Your task to perform on an android device: turn off smart reply in the gmail app Image 0: 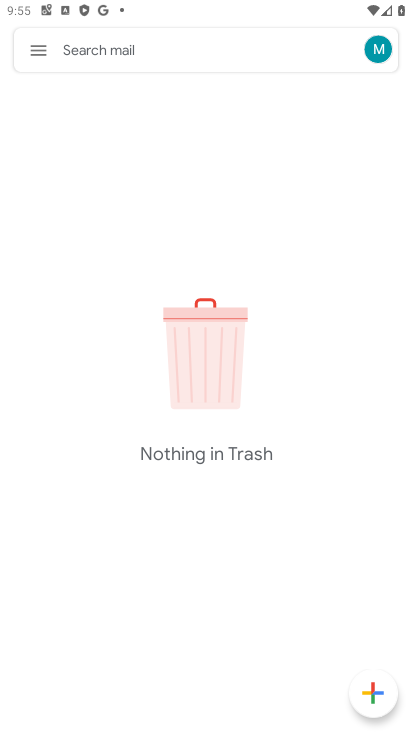
Step 0: press home button
Your task to perform on an android device: turn off smart reply in the gmail app Image 1: 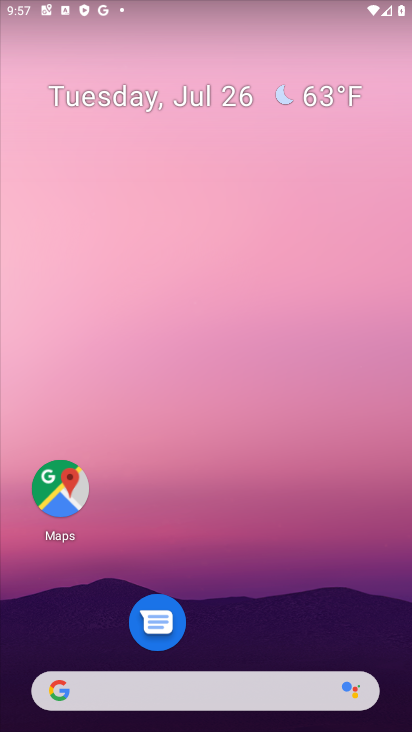
Step 1: drag from (254, 594) to (190, 4)
Your task to perform on an android device: turn off smart reply in the gmail app Image 2: 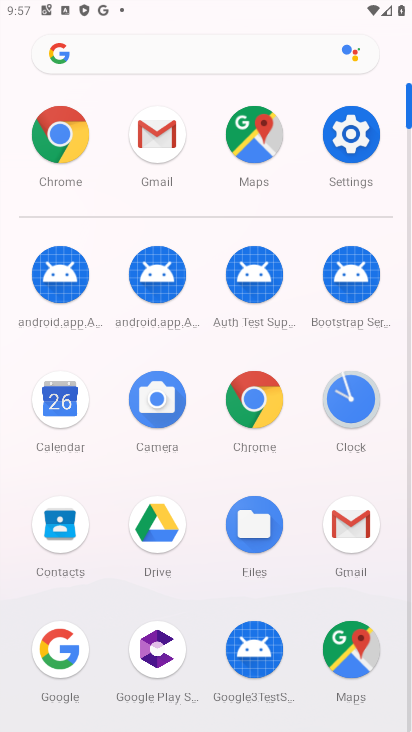
Step 2: click (163, 133)
Your task to perform on an android device: turn off smart reply in the gmail app Image 3: 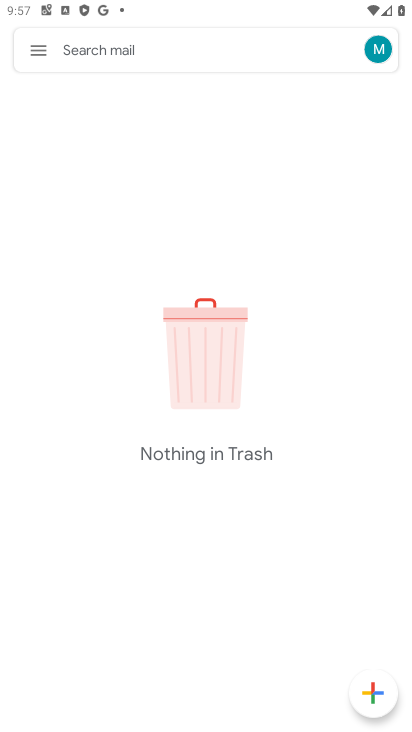
Step 3: click (46, 53)
Your task to perform on an android device: turn off smart reply in the gmail app Image 4: 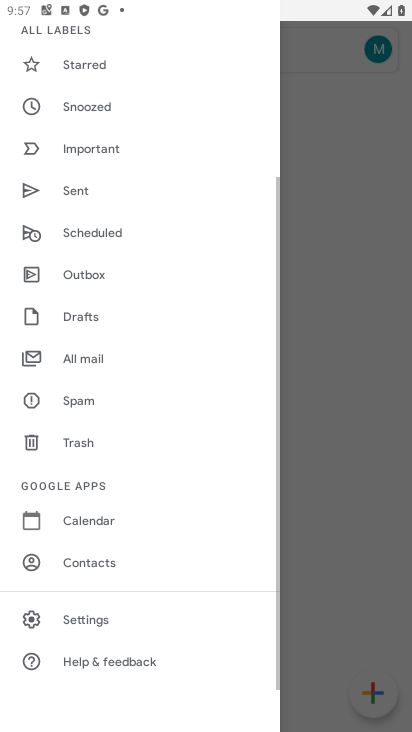
Step 4: click (69, 616)
Your task to perform on an android device: turn off smart reply in the gmail app Image 5: 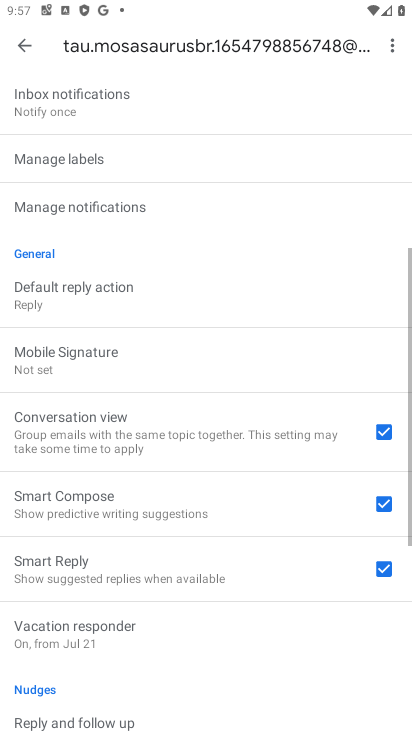
Step 5: drag from (103, 596) to (114, 150)
Your task to perform on an android device: turn off smart reply in the gmail app Image 6: 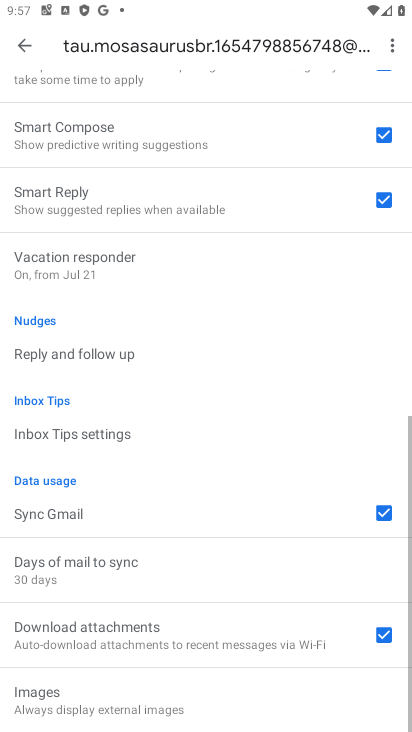
Step 6: drag from (162, 254) to (249, 641)
Your task to perform on an android device: turn off smart reply in the gmail app Image 7: 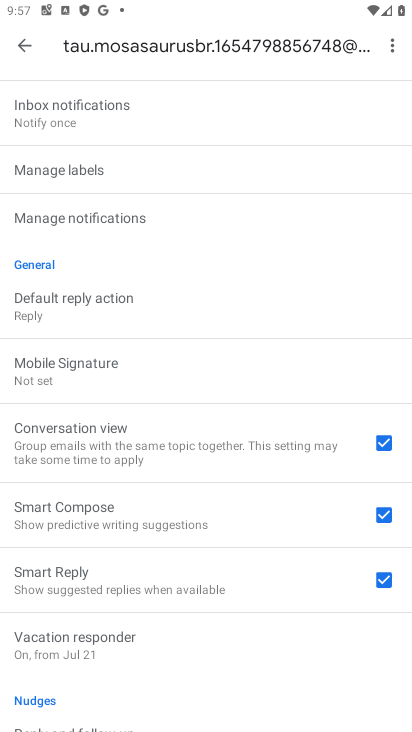
Step 7: click (393, 571)
Your task to perform on an android device: turn off smart reply in the gmail app Image 8: 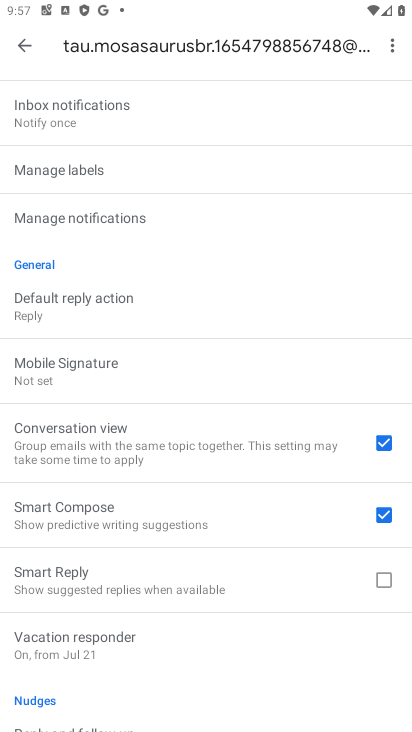
Step 8: task complete